Your task to perform on an android device: Open Maps and search for coffee Image 0: 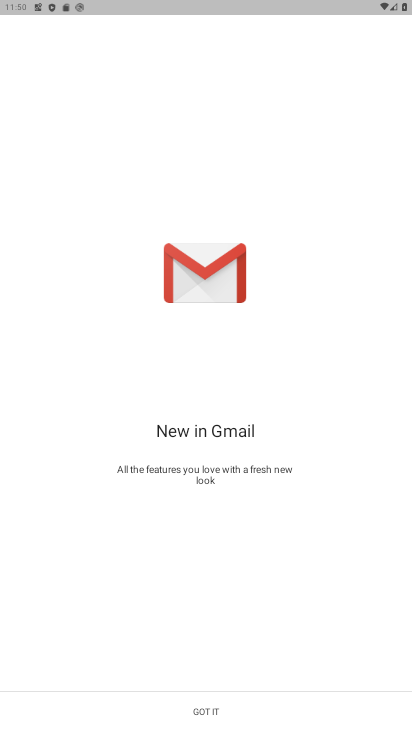
Step 0: press home button
Your task to perform on an android device: Open Maps and search for coffee Image 1: 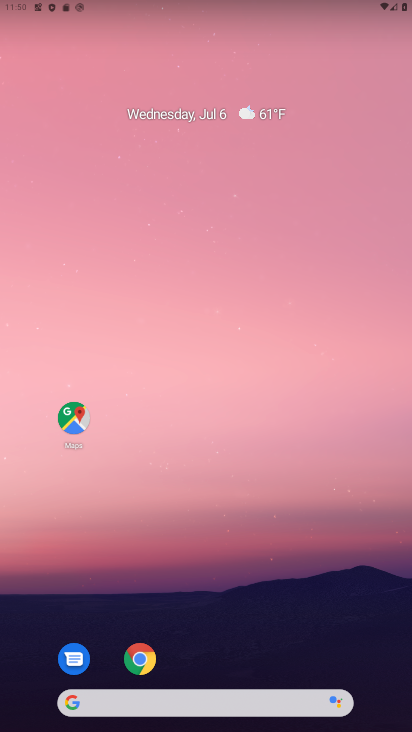
Step 1: click (69, 420)
Your task to perform on an android device: Open Maps and search for coffee Image 2: 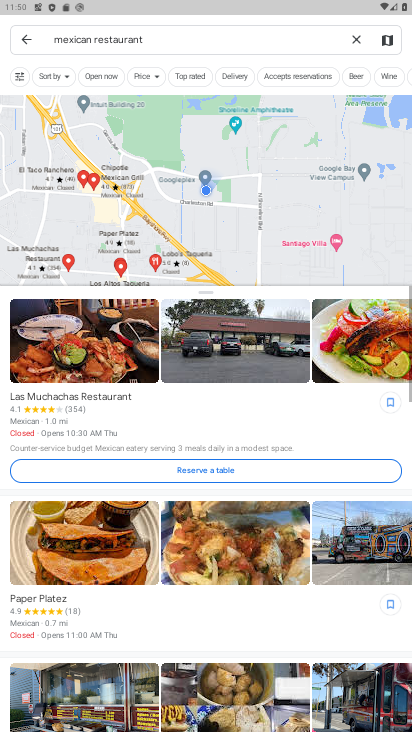
Step 2: click (356, 42)
Your task to perform on an android device: Open Maps and search for coffee Image 3: 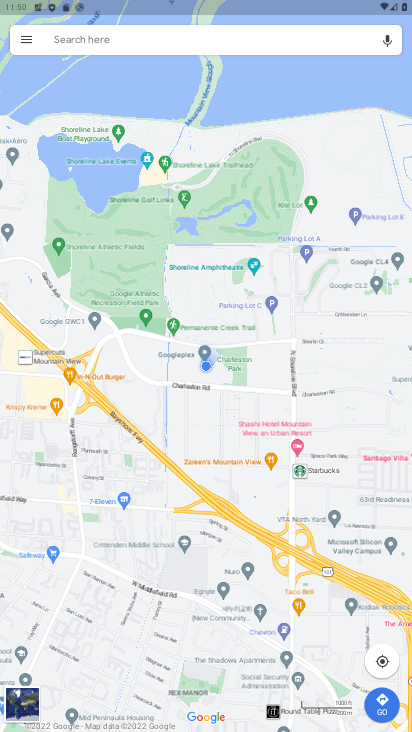
Step 3: click (265, 43)
Your task to perform on an android device: Open Maps and search for coffee Image 4: 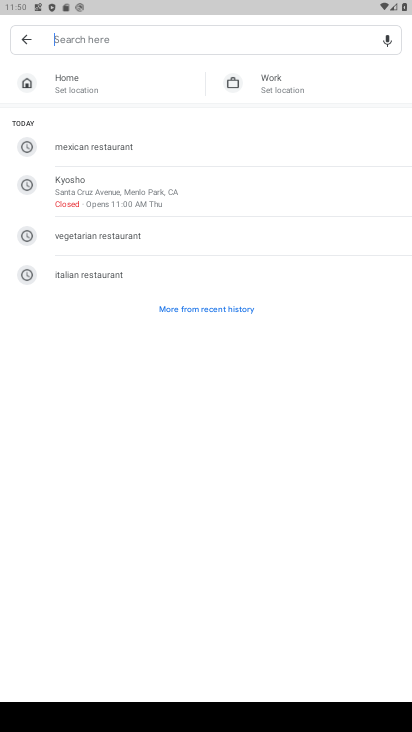
Step 4: type "coffee"
Your task to perform on an android device: Open Maps and search for coffee Image 5: 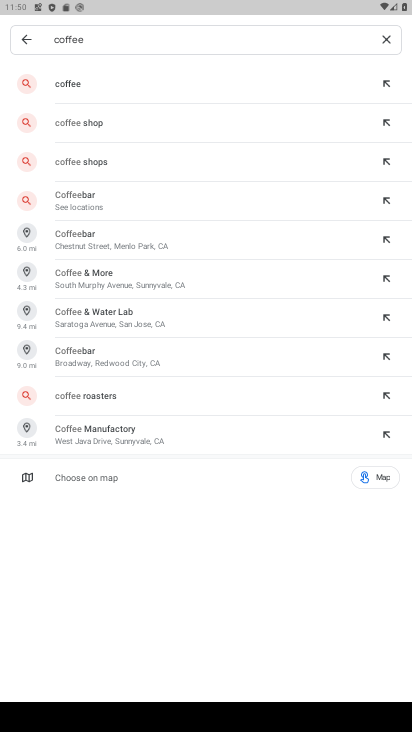
Step 5: click (57, 90)
Your task to perform on an android device: Open Maps and search for coffee Image 6: 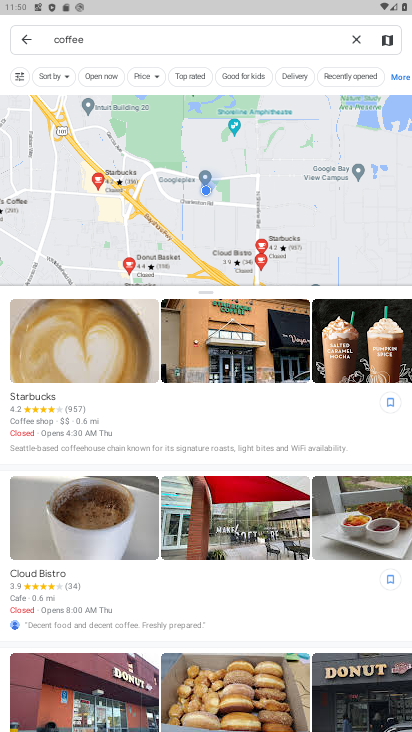
Step 6: task complete